Your task to perform on an android device: turn off picture-in-picture Image 0: 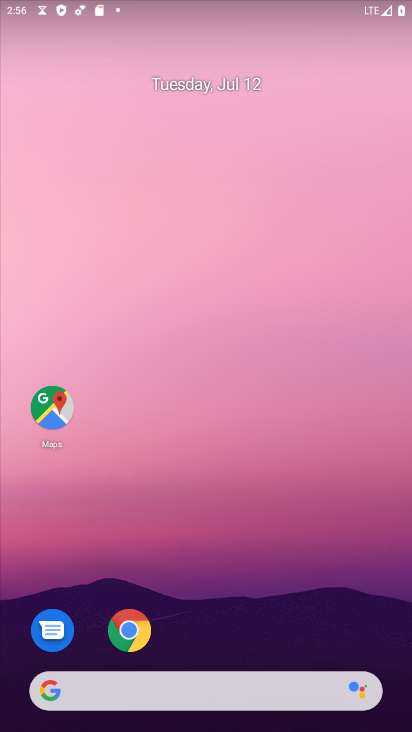
Step 0: click (134, 634)
Your task to perform on an android device: turn off picture-in-picture Image 1: 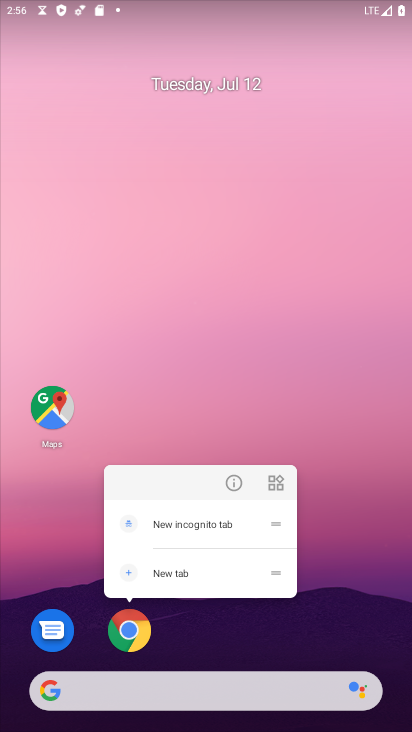
Step 1: click (233, 483)
Your task to perform on an android device: turn off picture-in-picture Image 2: 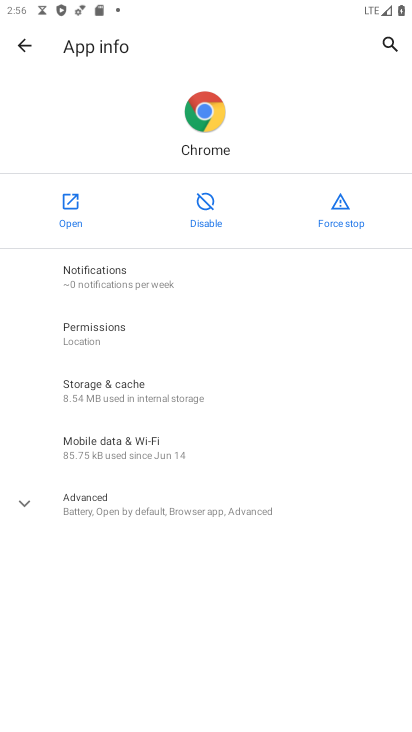
Step 2: click (109, 510)
Your task to perform on an android device: turn off picture-in-picture Image 3: 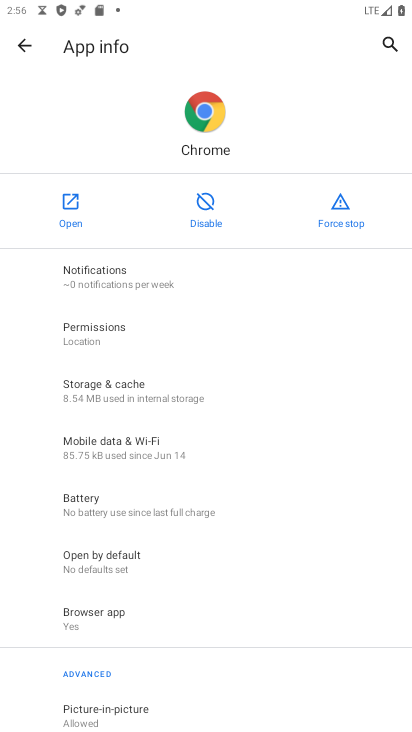
Step 3: drag from (167, 581) to (179, 429)
Your task to perform on an android device: turn off picture-in-picture Image 4: 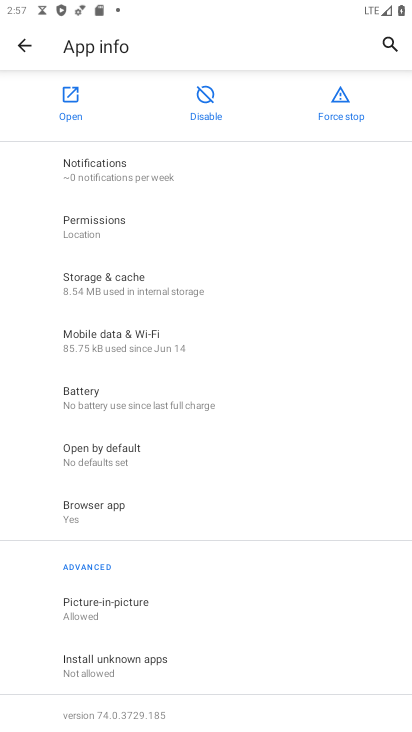
Step 4: click (120, 604)
Your task to perform on an android device: turn off picture-in-picture Image 5: 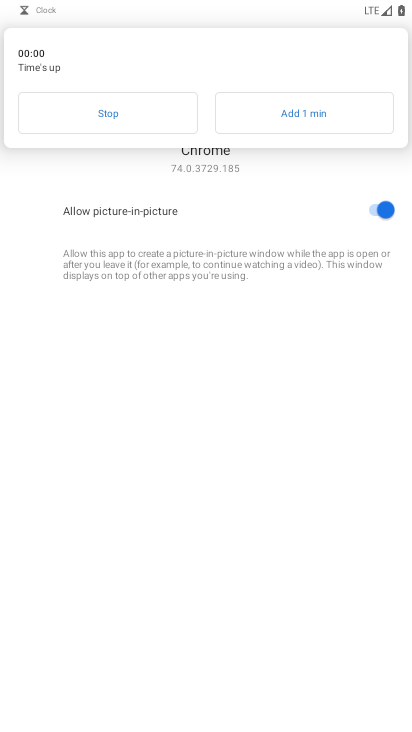
Step 5: click (363, 213)
Your task to perform on an android device: turn off picture-in-picture Image 6: 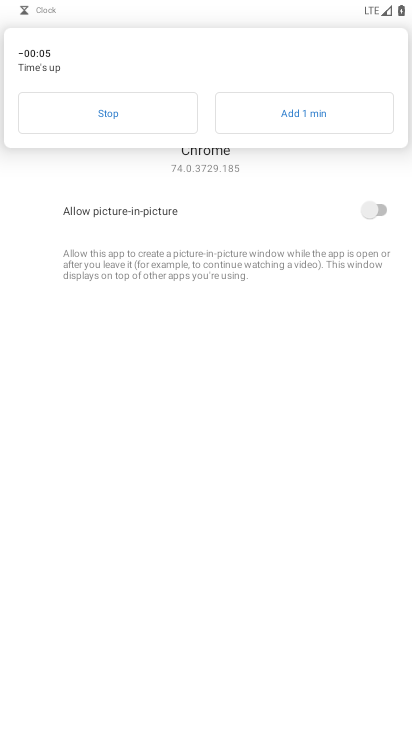
Step 6: task complete